Your task to perform on an android device: Go to sound settings Image 0: 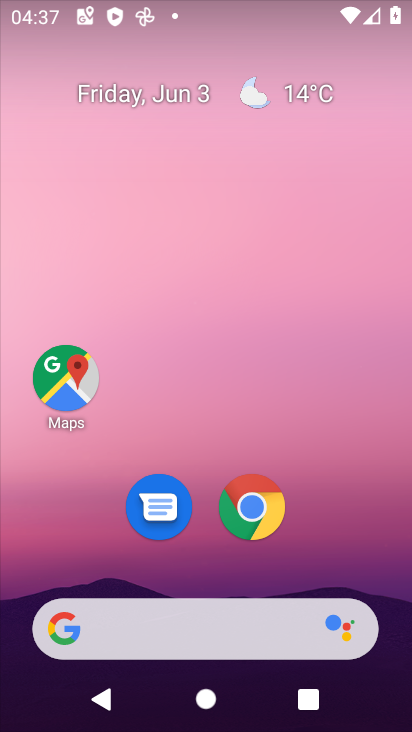
Step 0: press home button
Your task to perform on an android device: Go to sound settings Image 1: 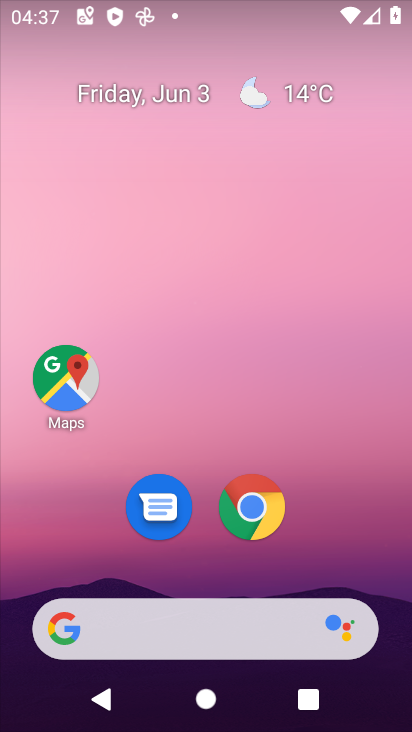
Step 1: drag from (341, 539) to (317, 145)
Your task to perform on an android device: Go to sound settings Image 2: 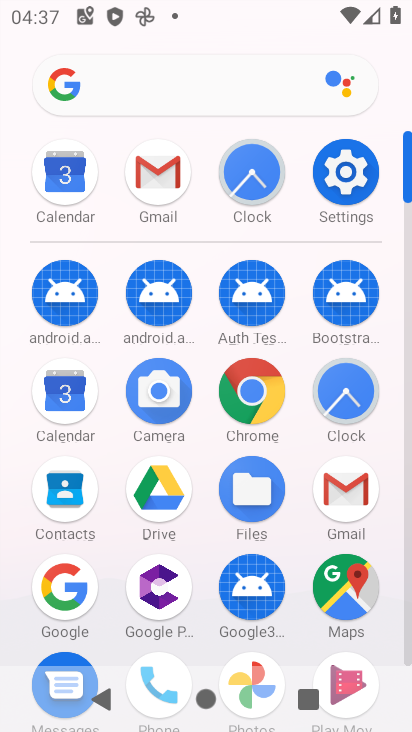
Step 2: click (330, 181)
Your task to perform on an android device: Go to sound settings Image 3: 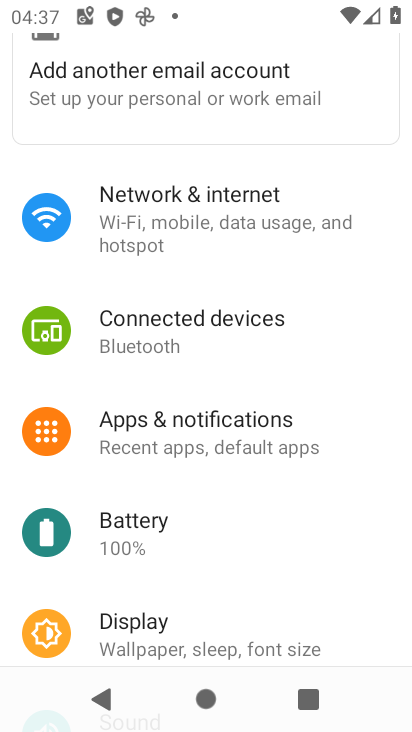
Step 3: drag from (350, 626) to (308, 286)
Your task to perform on an android device: Go to sound settings Image 4: 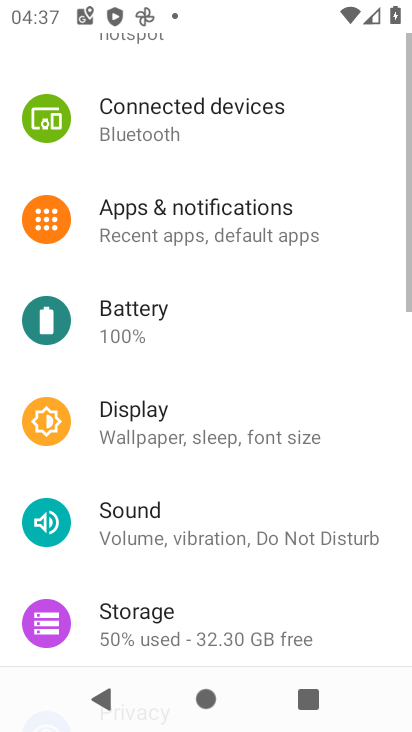
Step 4: click (162, 540)
Your task to perform on an android device: Go to sound settings Image 5: 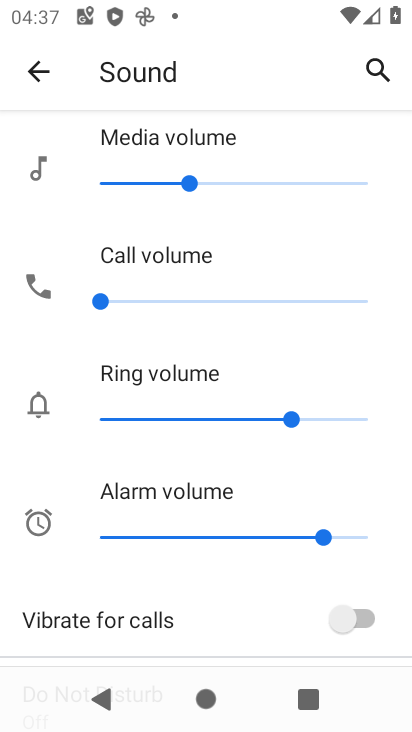
Step 5: task complete